Your task to perform on an android device: set the timer Image 0: 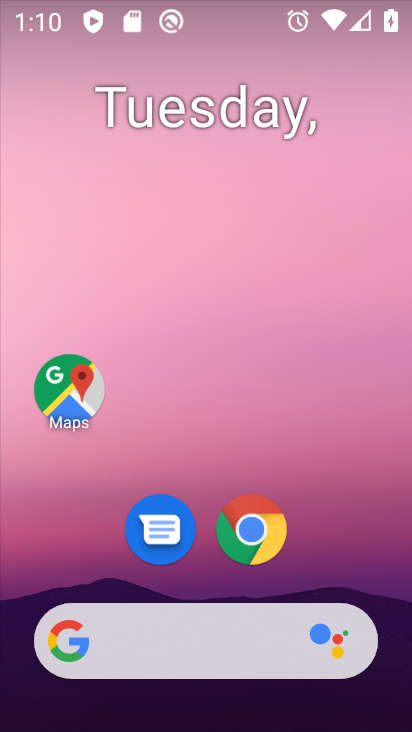
Step 0: drag from (386, 604) to (222, 70)
Your task to perform on an android device: set the timer Image 1: 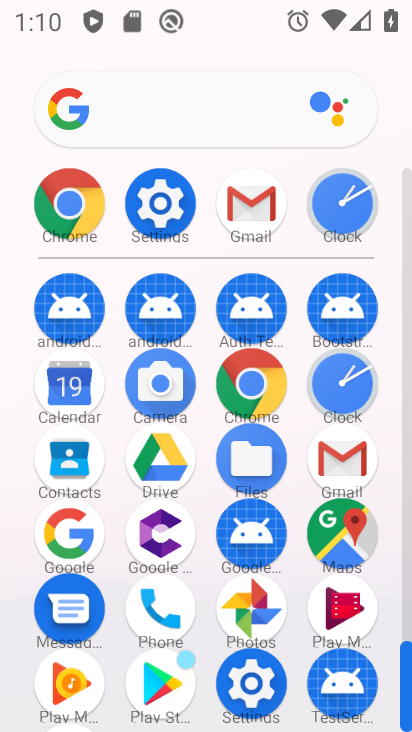
Step 1: click (347, 390)
Your task to perform on an android device: set the timer Image 2: 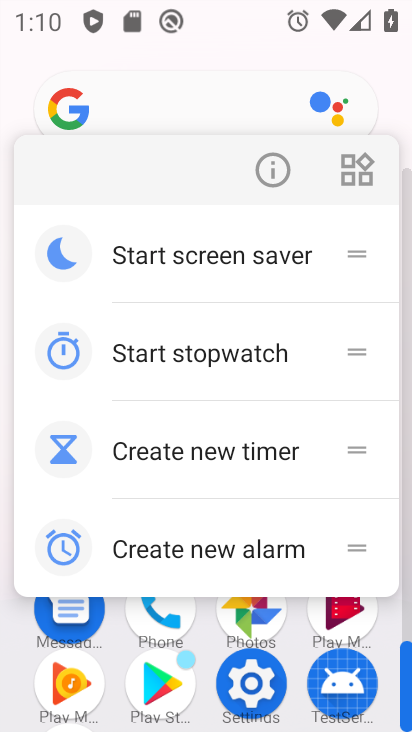
Step 2: press back button
Your task to perform on an android device: set the timer Image 3: 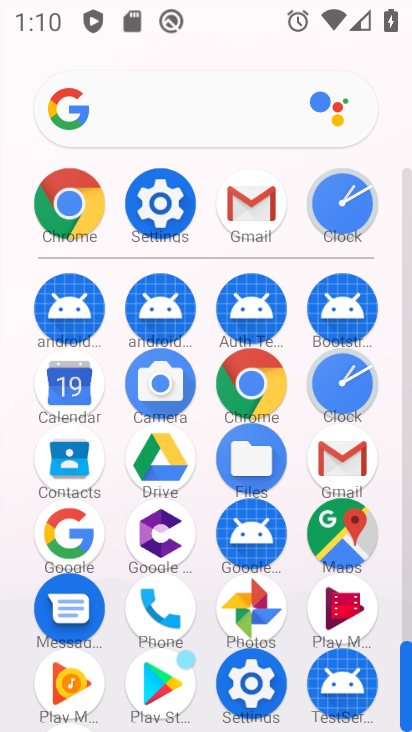
Step 3: click (338, 385)
Your task to perform on an android device: set the timer Image 4: 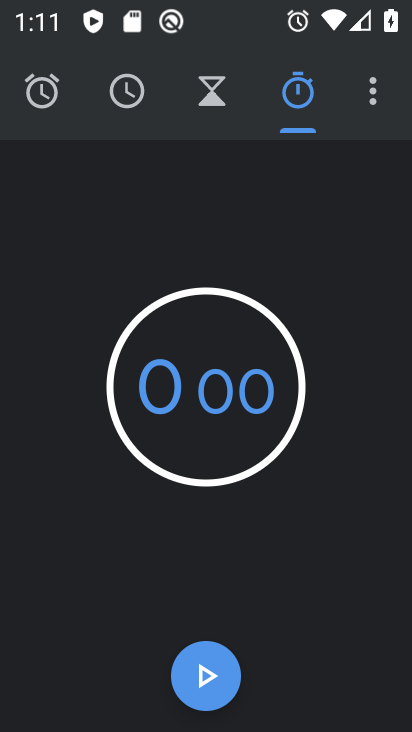
Step 4: click (366, 85)
Your task to perform on an android device: set the timer Image 5: 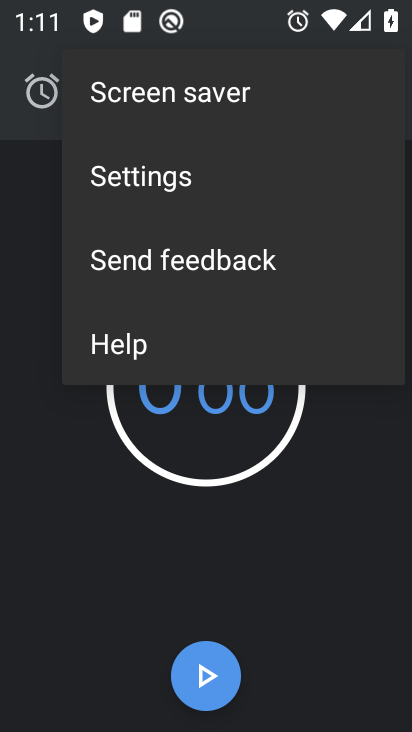
Step 5: click (278, 171)
Your task to perform on an android device: set the timer Image 6: 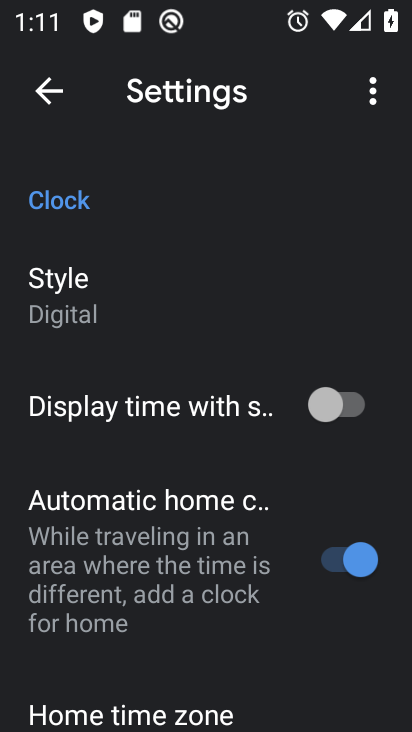
Step 6: drag from (184, 627) to (225, 409)
Your task to perform on an android device: set the timer Image 7: 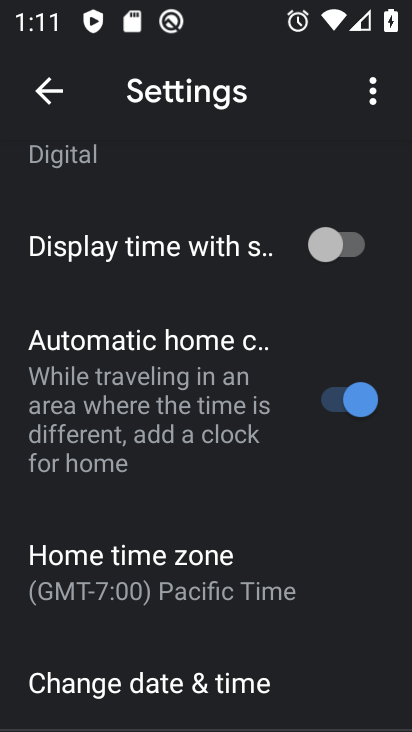
Step 7: click (192, 582)
Your task to perform on an android device: set the timer Image 8: 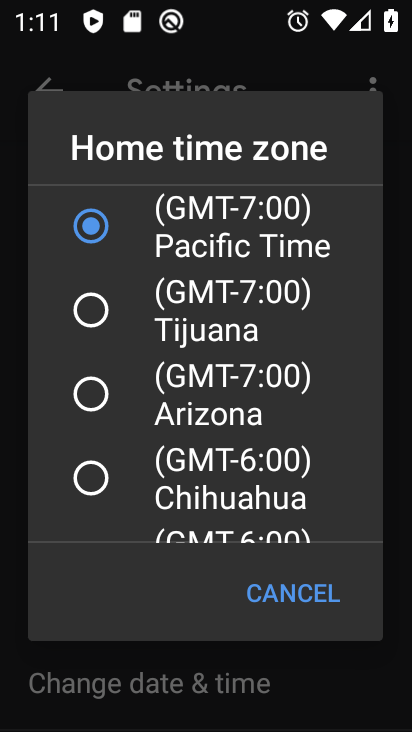
Step 8: click (205, 459)
Your task to perform on an android device: set the timer Image 9: 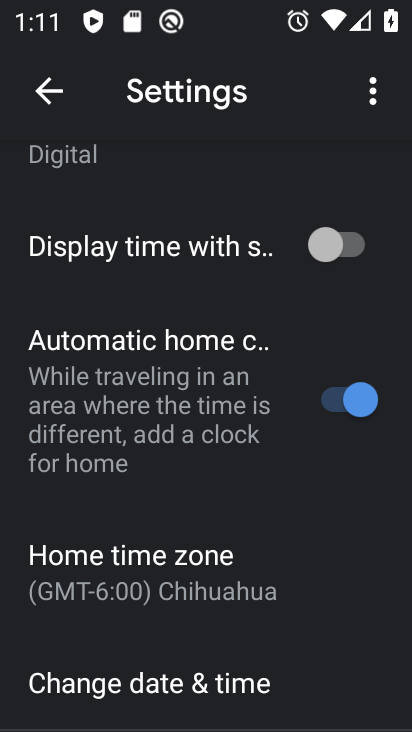
Step 9: task complete